Your task to perform on an android device: turn on priority inbox in the gmail app Image 0: 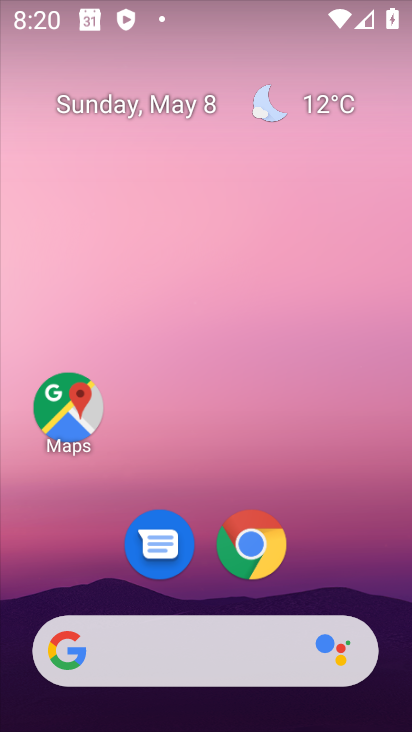
Step 0: drag from (338, 563) to (188, 165)
Your task to perform on an android device: turn on priority inbox in the gmail app Image 1: 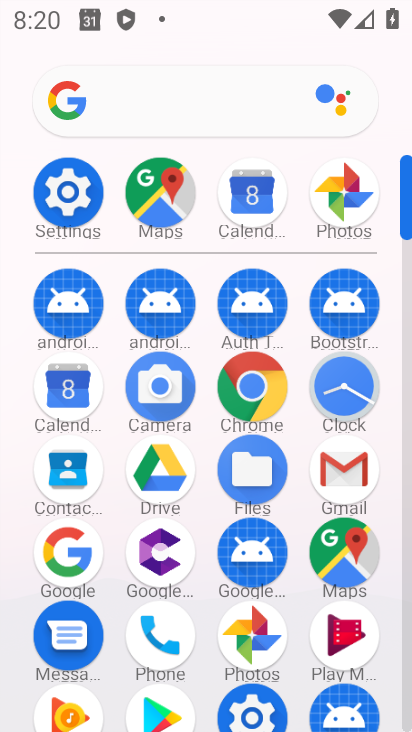
Step 1: click (354, 473)
Your task to perform on an android device: turn on priority inbox in the gmail app Image 2: 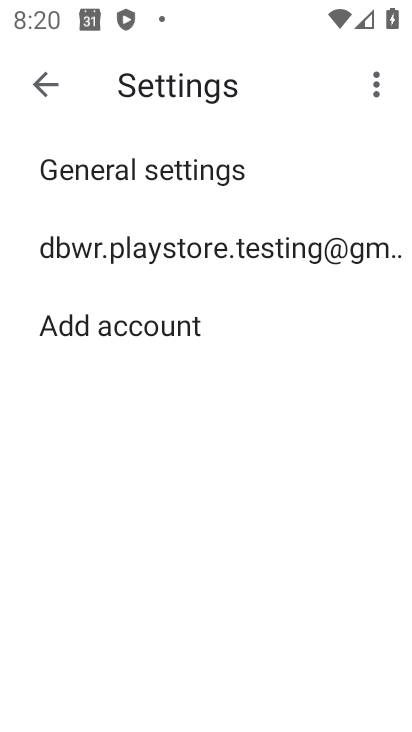
Step 2: click (122, 245)
Your task to perform on an android device: turn on priority inbox in the gmail app Image 3: 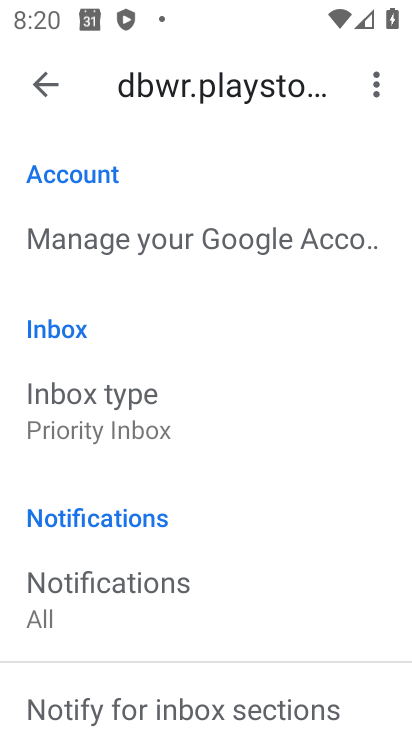
Step 3: click (81, 414)
Your task to perform on an android device: turn on priority inbox in the gmail app Image 4: 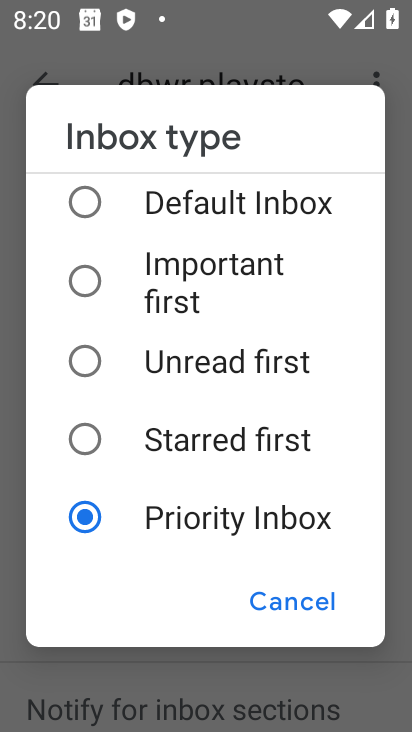
Step 4: task complete